Your task to perform on an android device: Open Google Image 0: 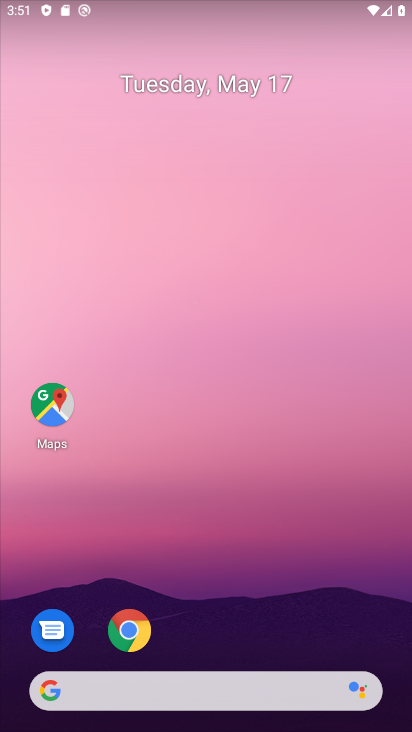
Step 0: drag from (198, 648) to (188, 245)
Your task to perform on an android device: Open Google Image 1: 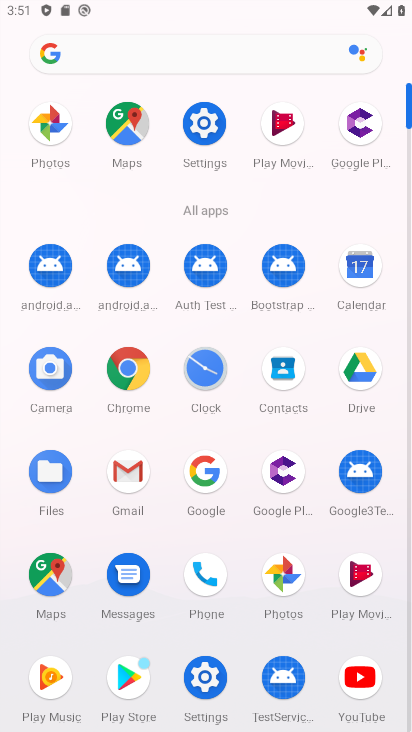
Step 1: click (210, 461)
Your task to perform on an android device: Open Google Image 2: 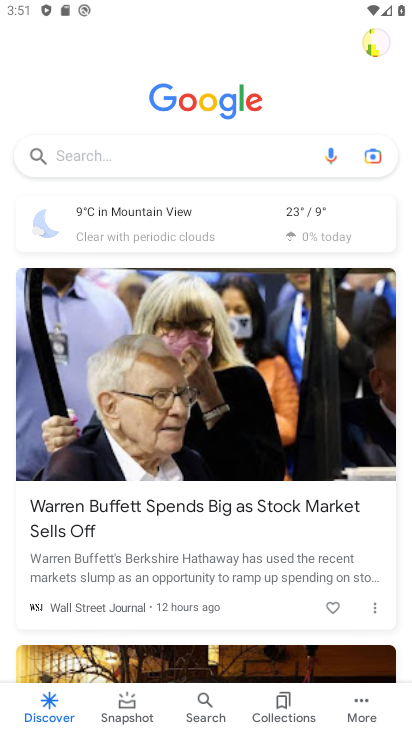
Step 2: task complete